Your task to perform on an android device: install app "Pandora - Music & Podcasts" Image 0: 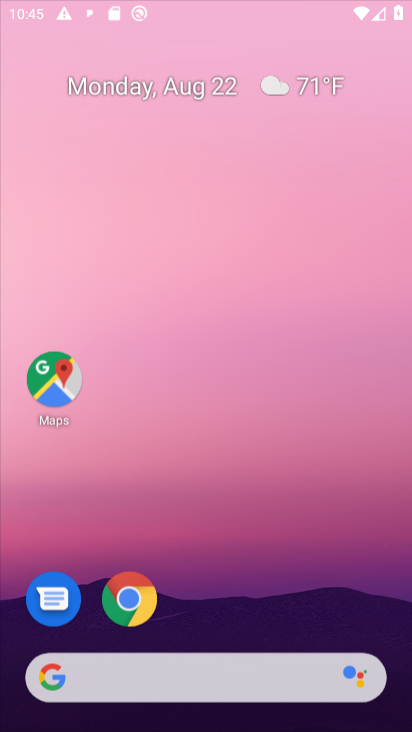
Step 0: drag from (204, 545) to (159, 87)
Your task to perform on an android device: install app "Pandora - Music & Podcasts" Image 1: 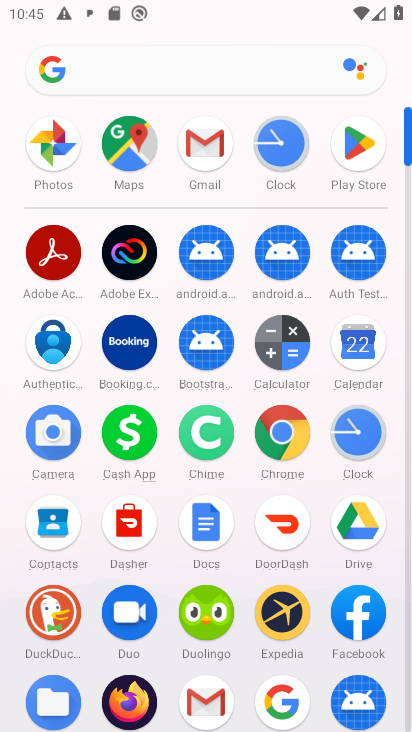
Step 1: click (362, 151)
Your task to perform on an android device: install app "Pandora - Music & Podcasts" Image 2: 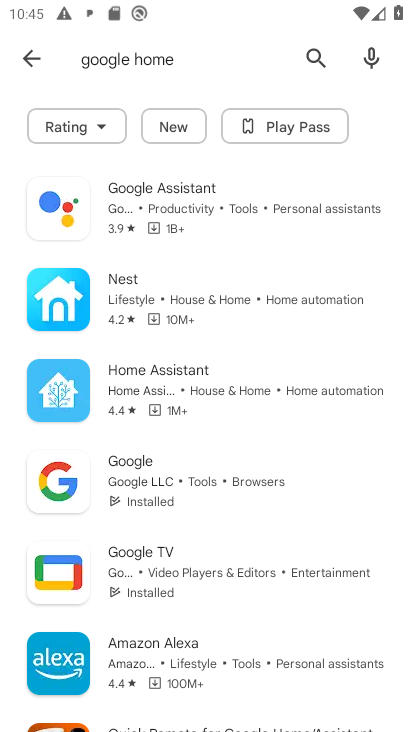
Step 2: click (363, 58)
Your task to perform on an android device: install app "Pandora - Music & Podcasts" Image 3: 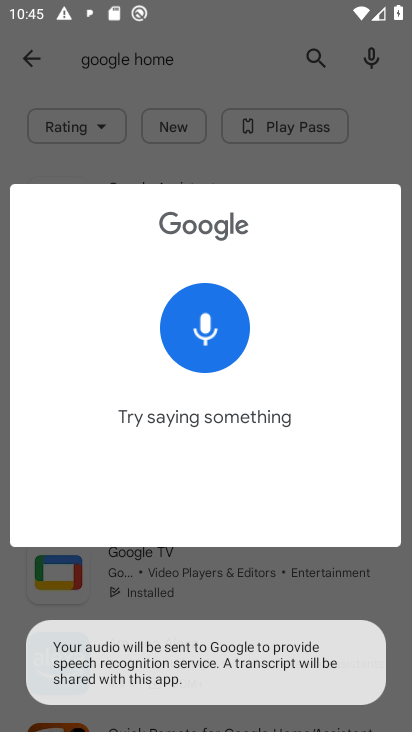
Step 3: click (321, 68)
Your task to perform on an android device: install app "Pandora - Music & Podcasts" Image 4: 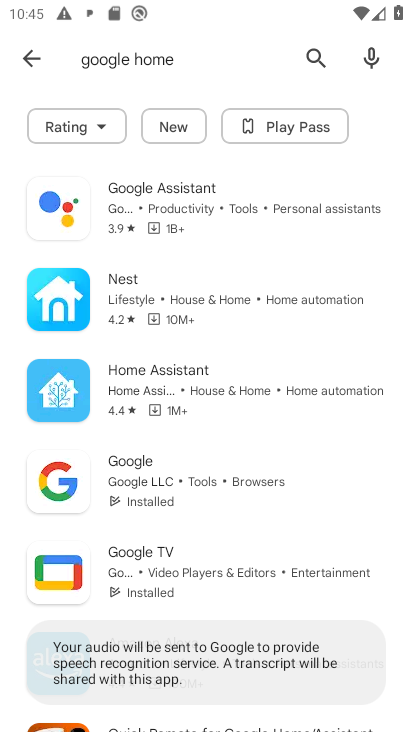
Step 4: click (313, 63)
Your task to perform on an android device: install app "Pandora - Music & Podcasts" Image 5: 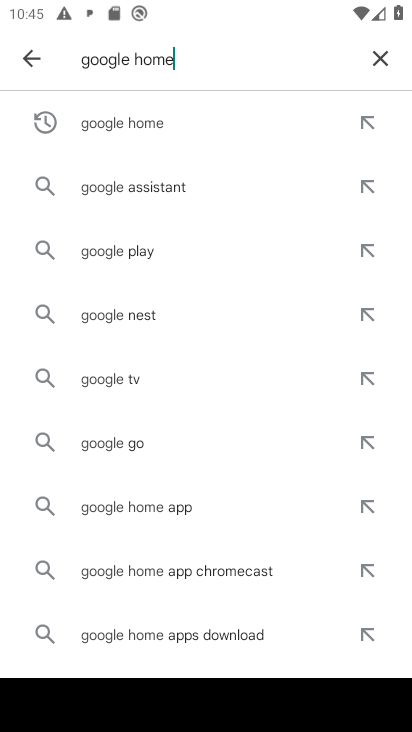
Step 5: click (377, 55)
Your task to perform on an android device: install app "Pandora - Music & Podcasts" Image 6: 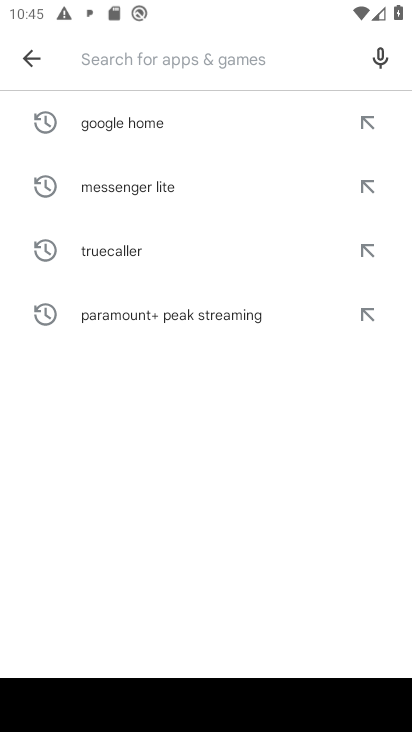
Step 6: type "Pandora - Music & Podcasts"
Your task to perform on an android device: install app "Pandora - Music & Podcasts" Image 7: 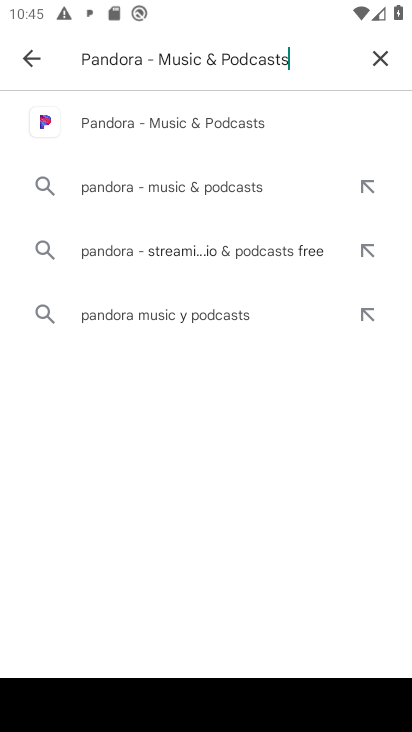
Step 7: click (133, 125)
Your task to perform on an android device: install app "Pandora - Music & Podcasts" Image 8: 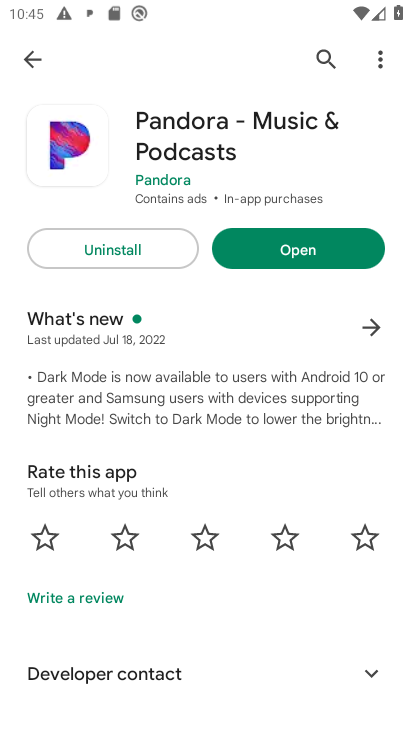
Step 8: task complete